Your task to perform on an android device: open device folders in google photos Image 0: 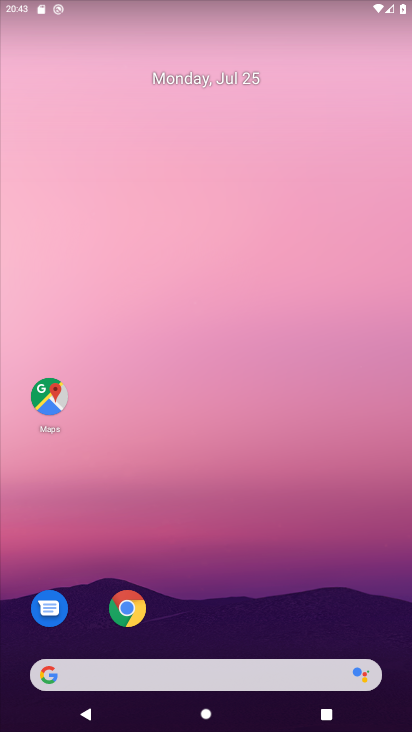
Step 0: drag from (275, 617) to (257, 316)
Your task to perform on an android device: open device folders in google photos Image 1: 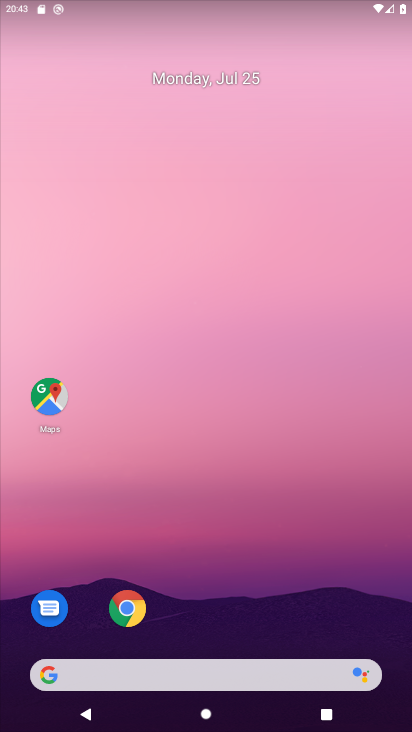
Step 1: drag from (252, 614) to (278, 0)
Your task to perform on an android device: open device folders in google photos Image 2: 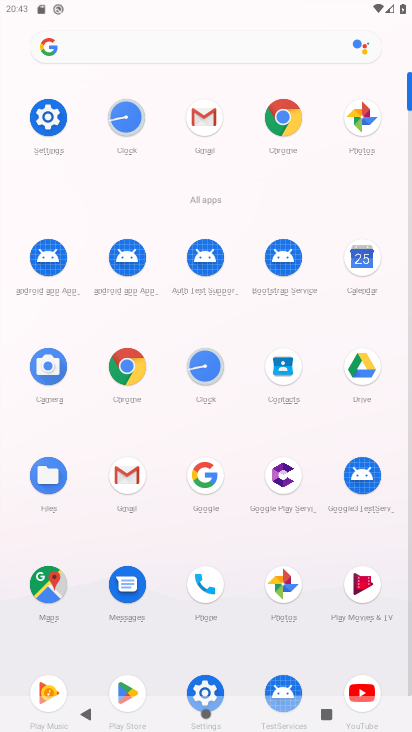
Step 2: click (281, 593)
Your task to perform on an android device: open device folders in google photos Image 3: 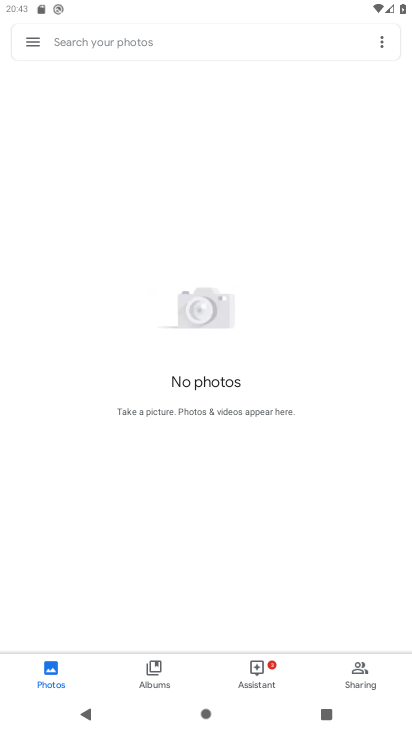
Step 3: click (24, 39)
Your task to perform on an android device: open device folders in google photos Image 4: 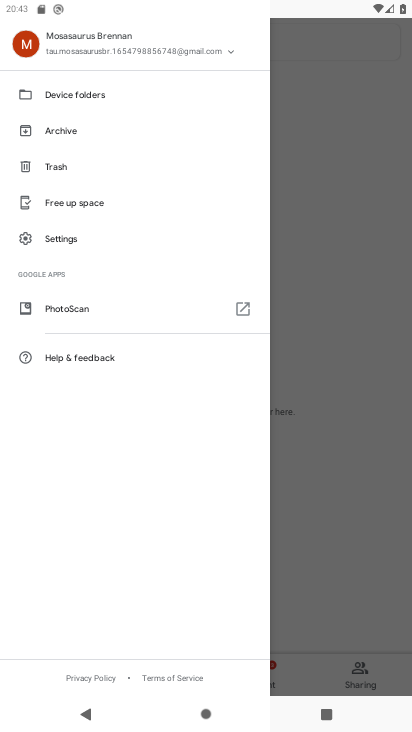
Step 4: click (101, 99)
Your task to perform on an android device: open device folders in google photos Image 5: 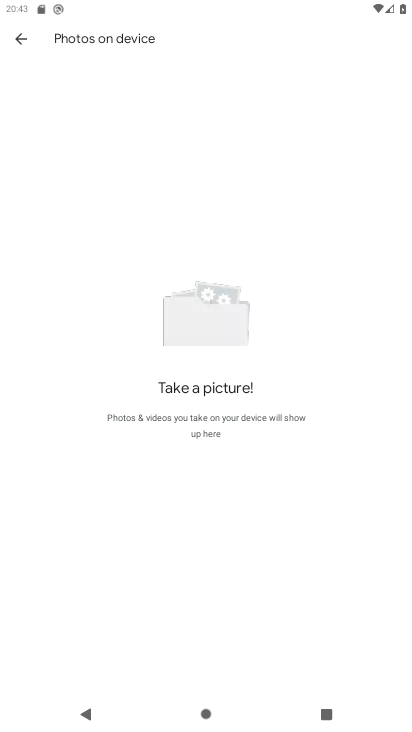
Step 5: task complete